Your task to perform on an android device: Open internet settings Image 0: 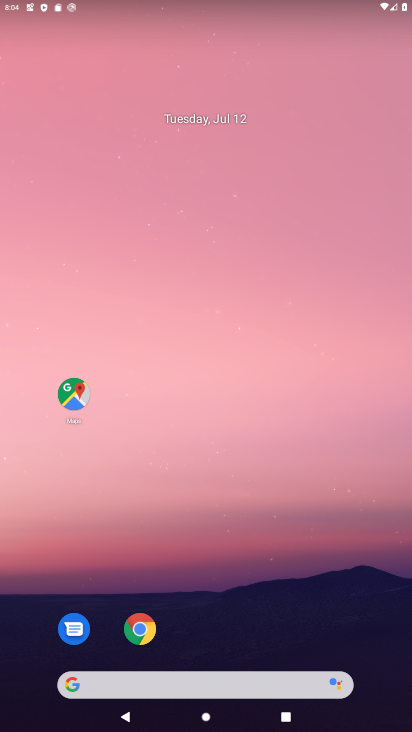
Step 0: drag from (343, 602) to (302, 267)
Your task to perform on an android device: Open internet settings Image 1: 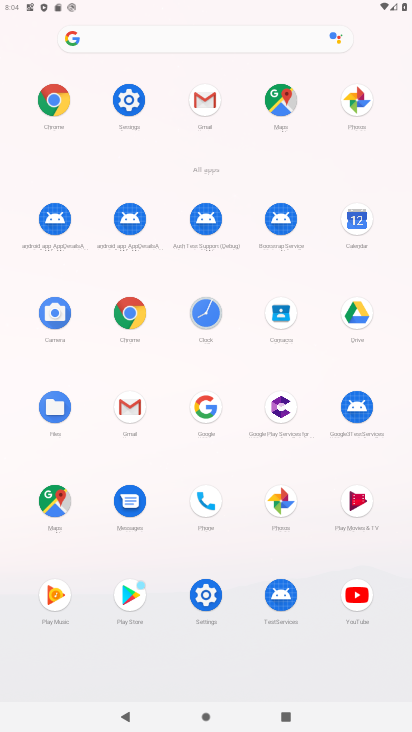
Step 1: click (129, 97)
Your task to perform on an android device: Open internet settings Image 2: 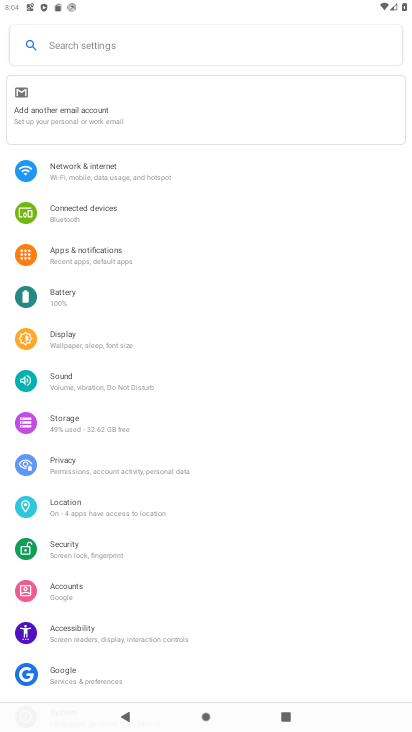
Step 2: click (69, 174)
Your task to perform on an android device: Open internet settings Image 3: 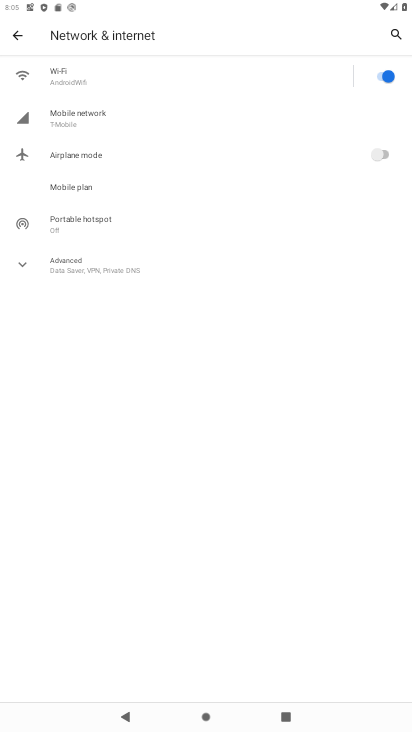
Step 3: task complete